Your task to perform on an android device: check android version Image 0: 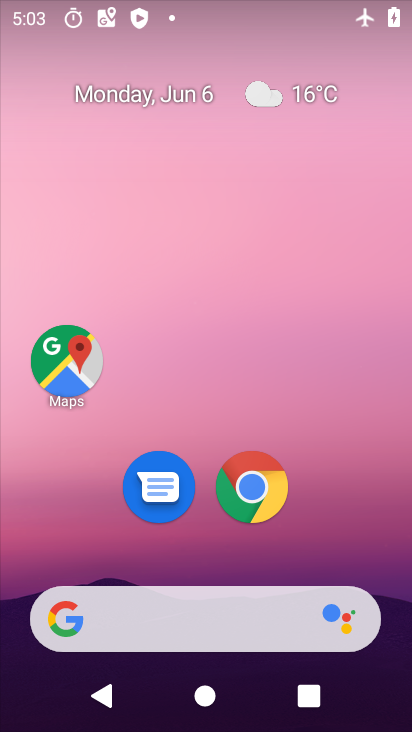
Step 0: drag from (302, 498) to (251, 70)
Your task to perform on an android device: check android version Image 1: 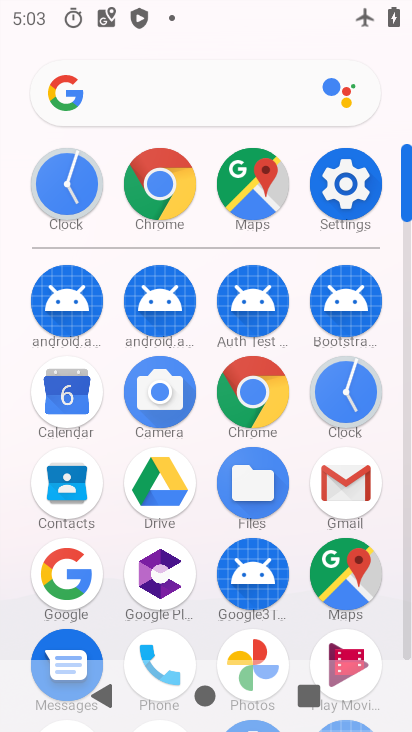
Step 1: click (347, 199)
Your task to perform on an android device: check android version Image 2: 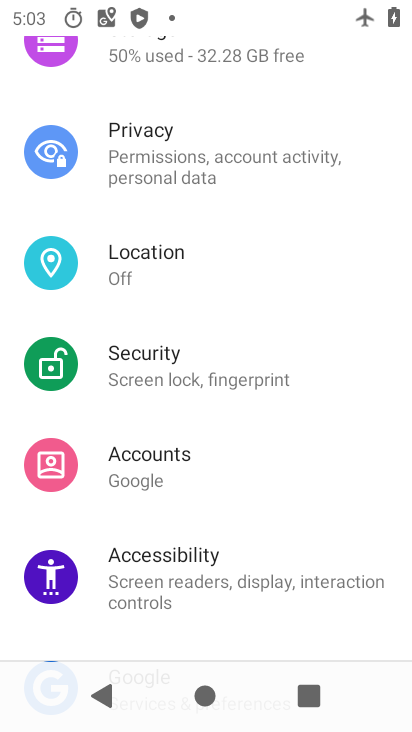
Step 2: drag from (274, 537) to (315, 11)
Your task to perform on an android device: check android version Image 3: 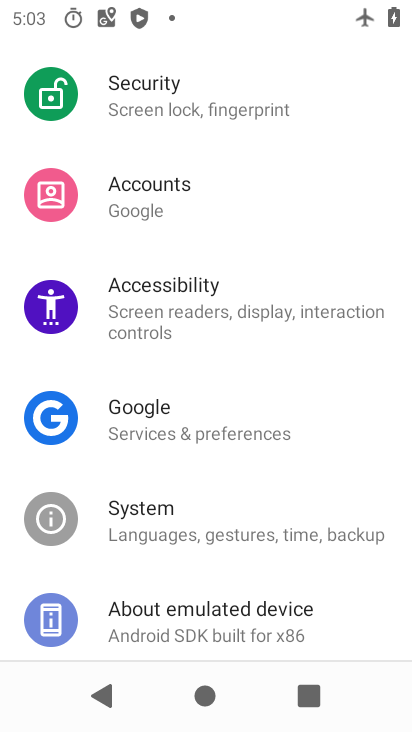
Step 3: click (187, 617)
Your task to perform on an android device: check android version Image 4: 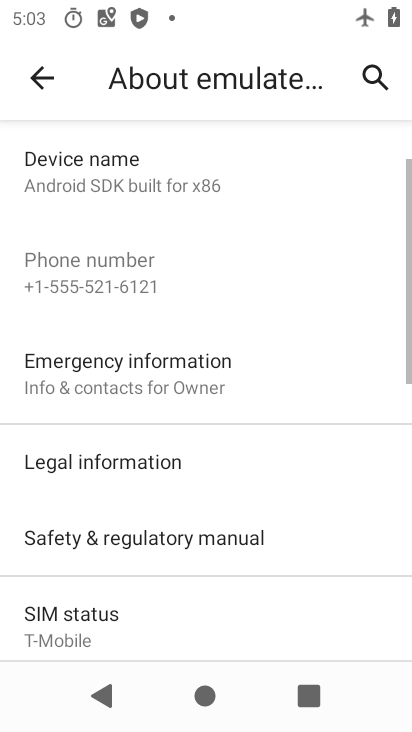
Step 4: drag from (213, 530) to (240, 49)
Your task to perform on an android device: check android version Image 5: 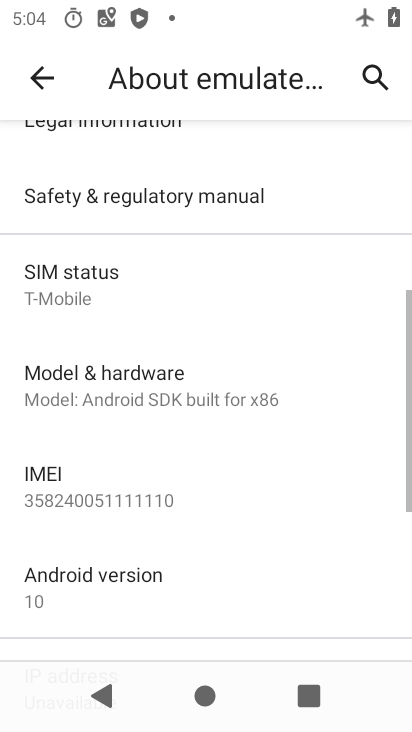
Step 5: click (173, 595)
Your task to perform on an android device: check android version Image 6: 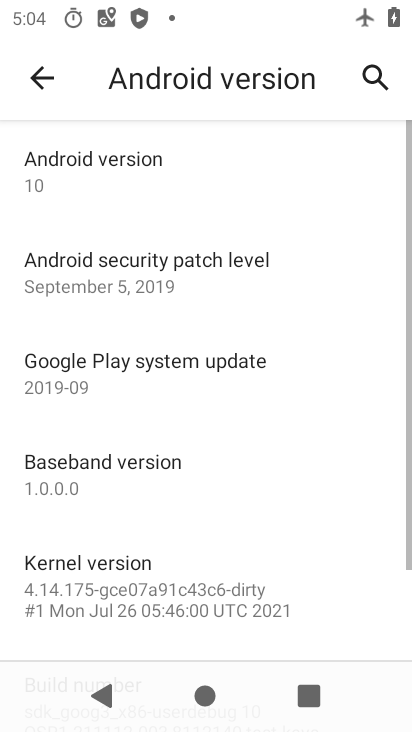
Step 6: task complete